Your task to perform on an android device: turn on data saver in the chrome app Image 0: 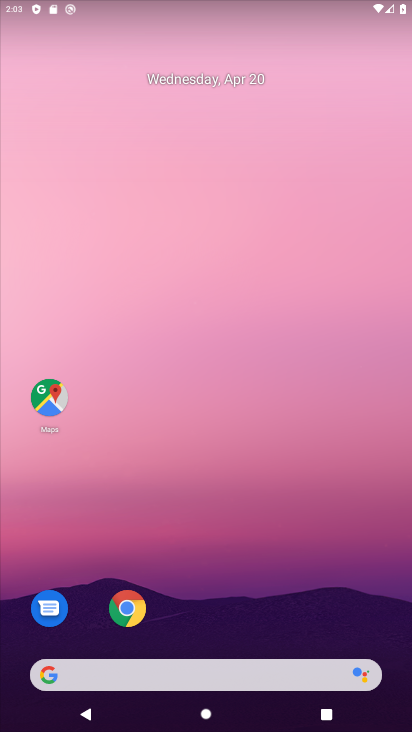
Step 0: drag from (362, 604) to (333, 204)
Your task to perform on an android device: turn on data saver in the chrome app Image 1: 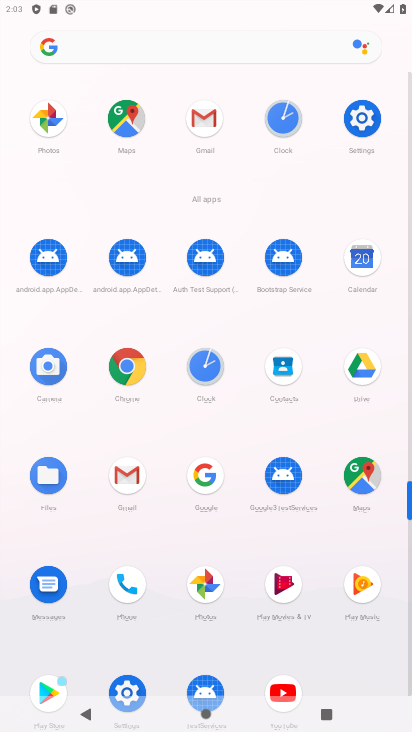
Step 1: click (123, 369)
Your task to perform on an android device: turn on data saver in the chrome app Image 2: 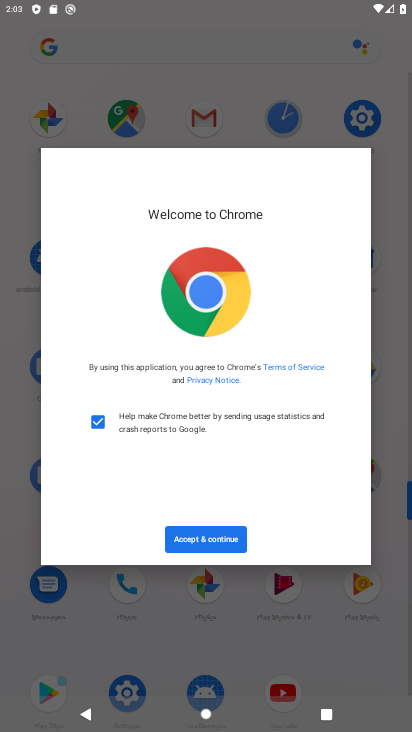
Step 2: click (195, 545)
Your task to perform on an android device: turn on data saver in the chrome app Image 3: 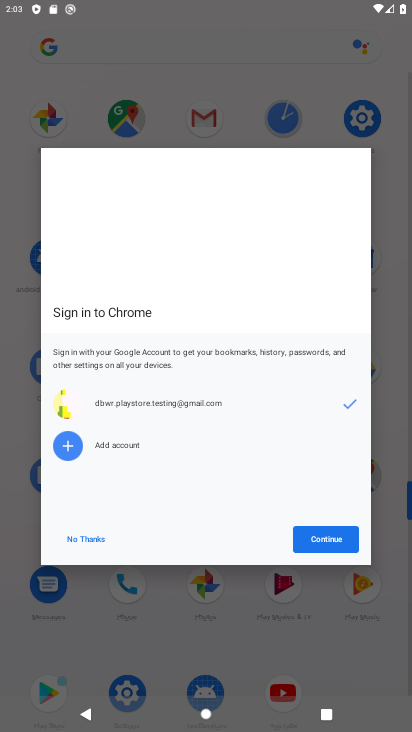
Step 3: click (348, 541)
Your task to perform on an android device: turn on data saver in the chrome app Image 4: 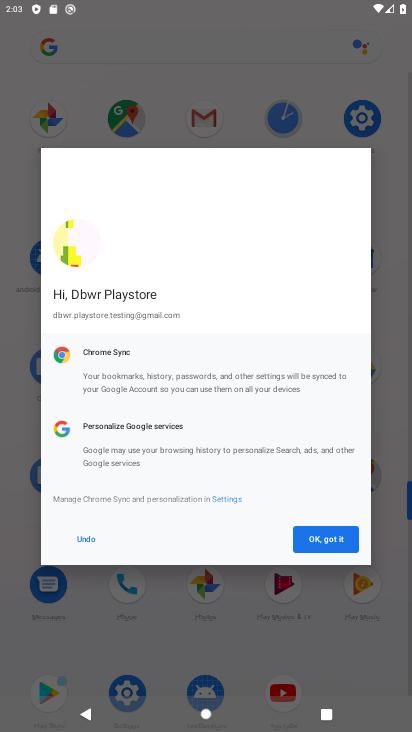
Step 4: click (347, 541)
Your task to perform on an android device: turn on data saver in the chrome app Image 5: 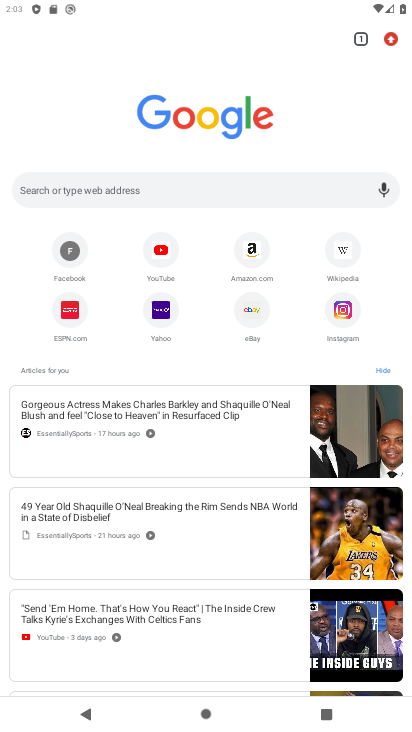
Step 5: click (390, 48)
Your task to perform on an android device: turn on data saver in the chrome app Image 6: 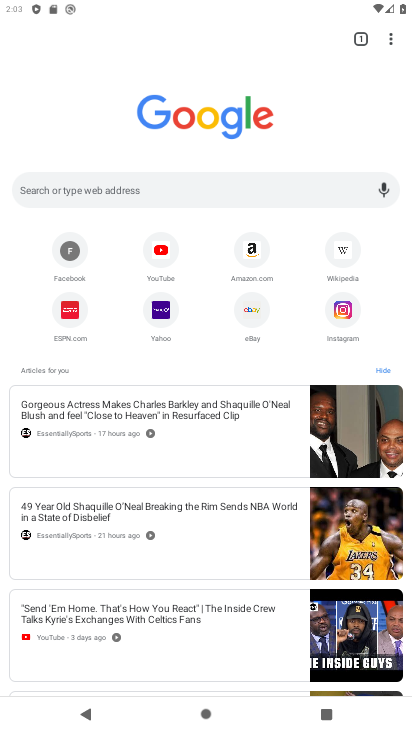
Step 6: click (393, 46)
Your task to perform on an android device: turn on data saver in the chrome app Image 7: 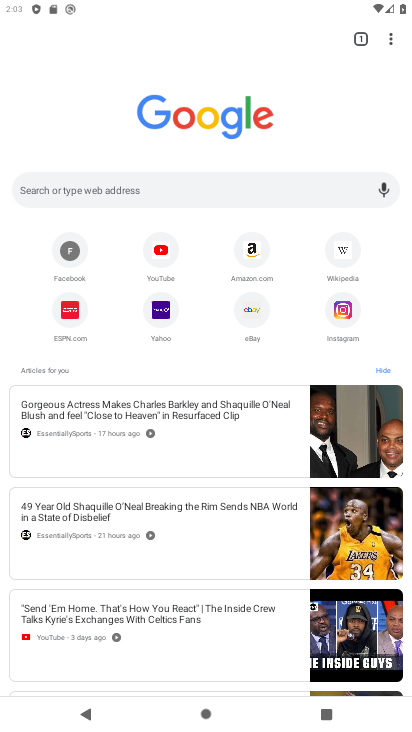
Step 7: drag from (392, 41) to (285, 375)
Your task to perform on an android device: turn on data saver in the chrome app Image 8: 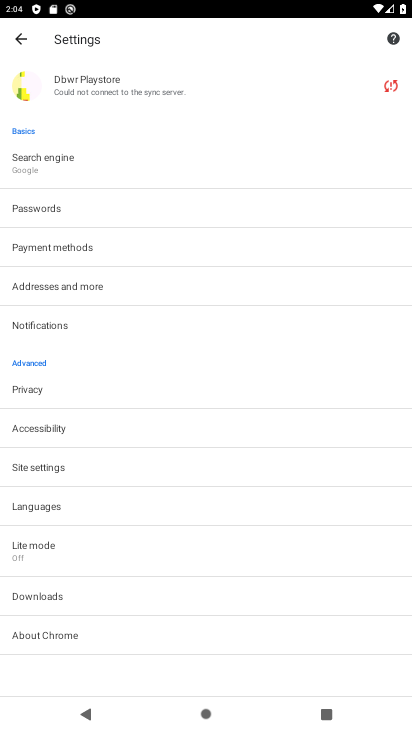
Step 8: click (94, 549)
Your task to perform on an android device: turn on data saver in the chrome app Image 9: 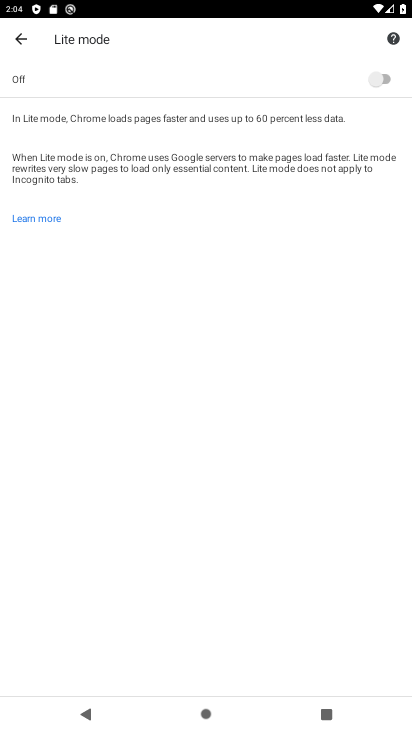
Step 9: click (388, 73)
Your task to perform on an android device: turn on data saver in the chrome app Image 10: 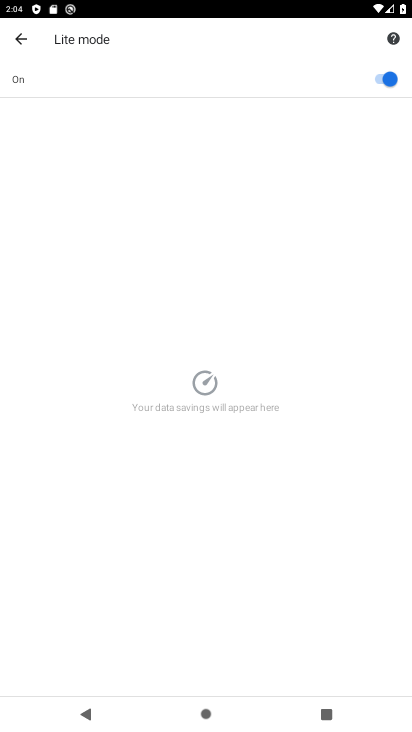
Step 10: task complete